Your task to perform on an android device: change keyboard looks Image 0: 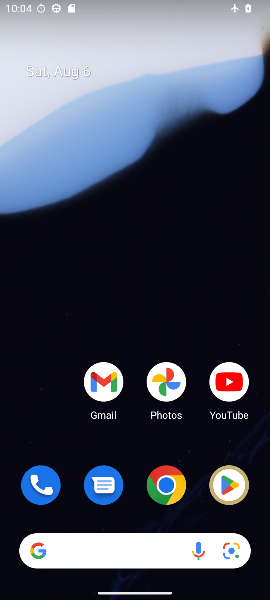
Step 0: drag from (135, 452) to (149, 9)
Your task to perform on an android device: change keyboard looks Image 1: 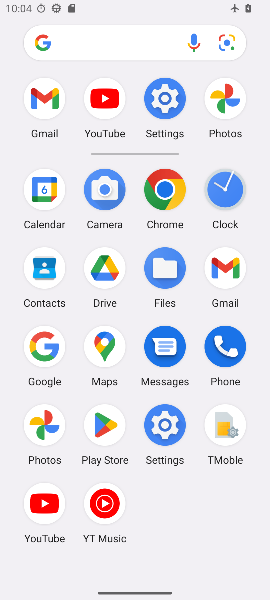
Step 1: click (163, 105)
Your task to perform on an android device: change keyboard looks Image 2: 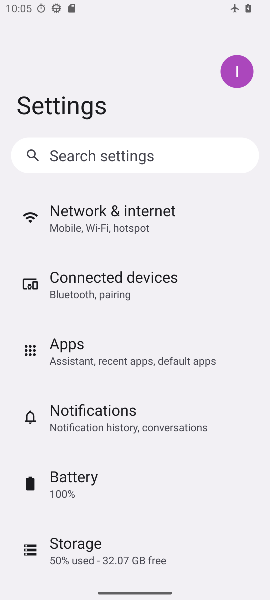
Step 2: drag from (151, 440) to (191, 42)
Your task to perform on an android device: change keyboard looks Image 3: 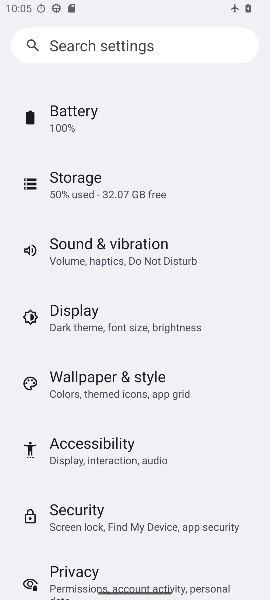
Step 3: drag from (129, 434) to (185, 87)
Your task to perform on an android device: change keyboard looks Image 4: 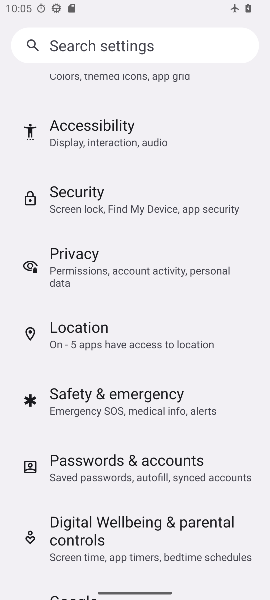
Step 4: drag from (178, 451) to (199, 136)
Your task to perform on an android device: change keyboard looks Image 5: 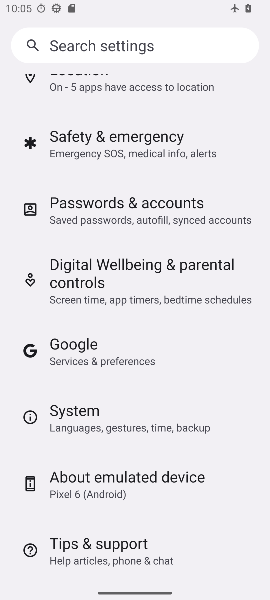
Step 5: click (111, 428)
Your task to perform on an android device: change keyboard looks Image 6: 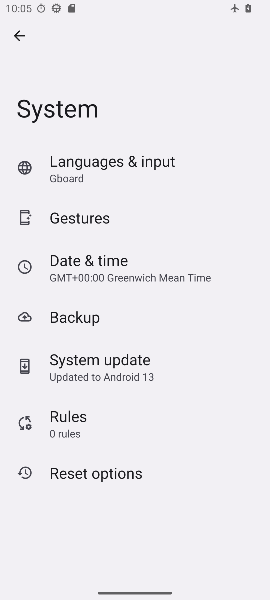
Step 6: click (100, 170)
Your task to perform on an android device: change keyboard looks Image 7: 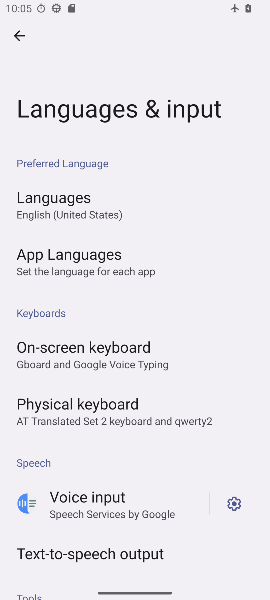
Step 7: click (123, 408)
Your task to perform on an android device: change keyboard looks Image 8: 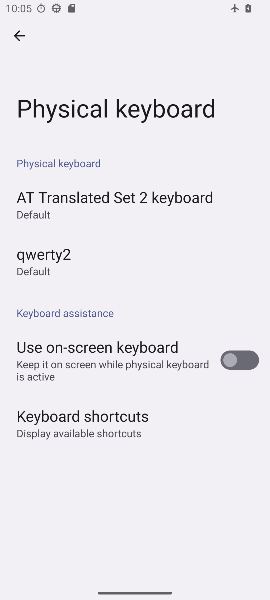
Step 8: click (17, 32)
Your task to perform on an android device: change keyboard looks Image 9: 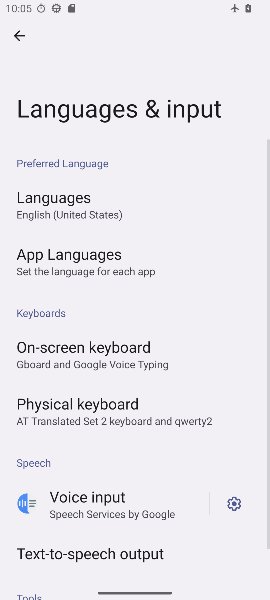
Step 9: drag from (186, 429) to (247, 178)
Your task to perform on an android device: change keyboard looks Image 10: 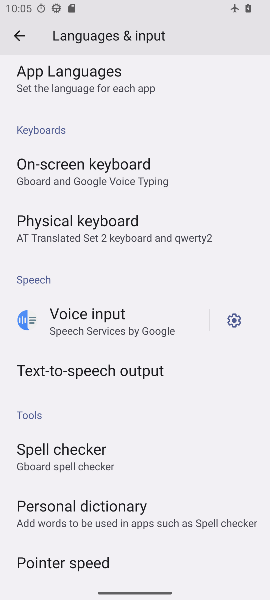
Step 10: drag from (211, 172) to (169, 309)
Your task to perform on an android device: change keyboard looks Image 11: 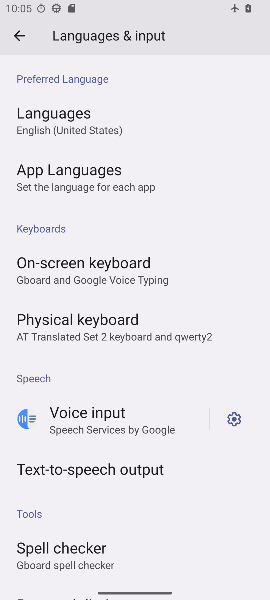
Step 11: click (109, 278)
Your task to perform on an android device: change keyboard looks Image 12: 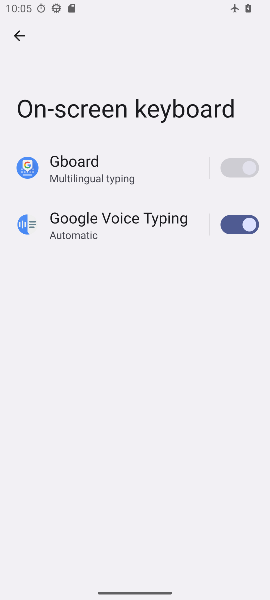
Step 12: click (18, 30)
Your task to perform on an android device: change keyboard looks Image 13: 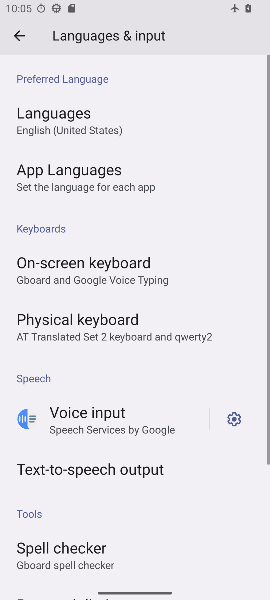
Step 13: drag from (103, 147) to (101, 344)
Your task to perform on an android device: change keyboard looks Image 14: 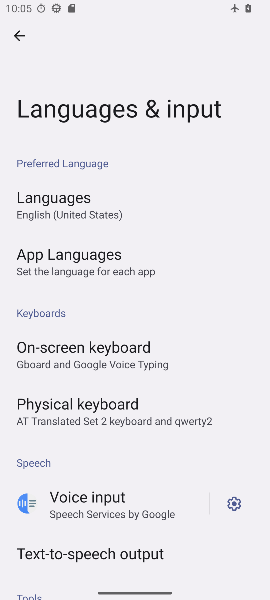
Step 14: click (66, 216)
Your task to perform on an android device: change keyboard looks Image 15: 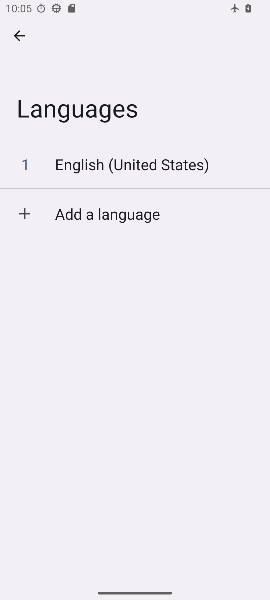
Step 15: click (14, 37)
Your task to perform on an android device: change keyboard looks Image 16: 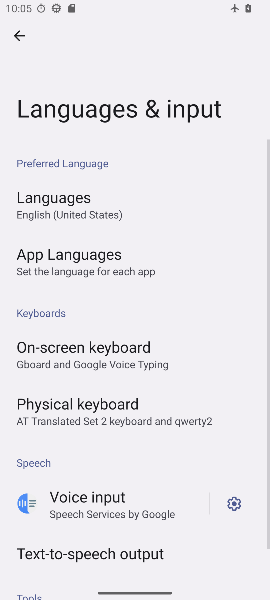
Step 16: task complete